Your task to perform on an android device: Go to Wikipedia Image 0: 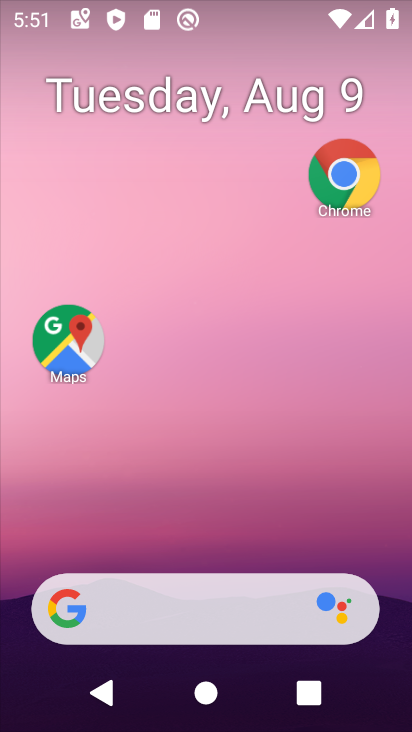
Step 0: drag from (158, 511) to (162, 392)
Your task to perform on an android device: Go to Wikipedia Image 1: 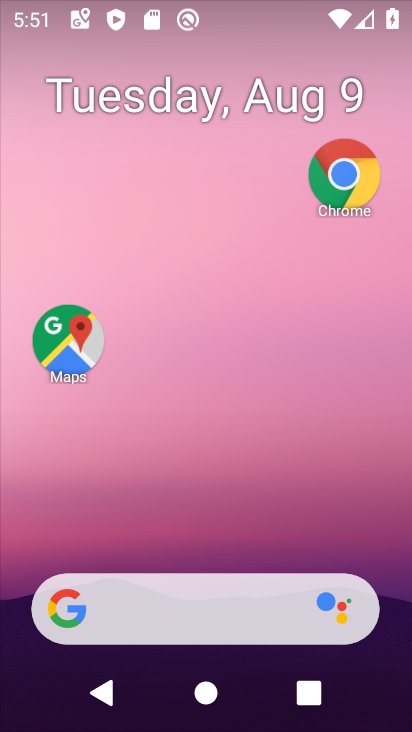
Step 1: drag from (218, 515) to (253, 234)
Your task to perform on an android device: Go to Wikipedia Image 2: 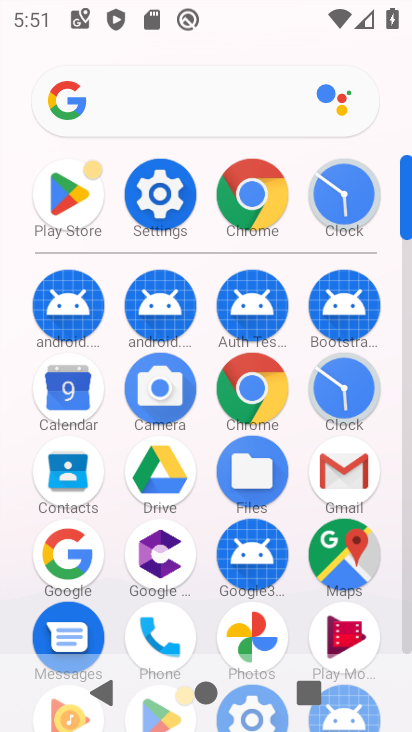
Step 2: drag from (189, 607) to (189, 312)
Your task to perform on an android device: Go to Wikipedia Image 3: 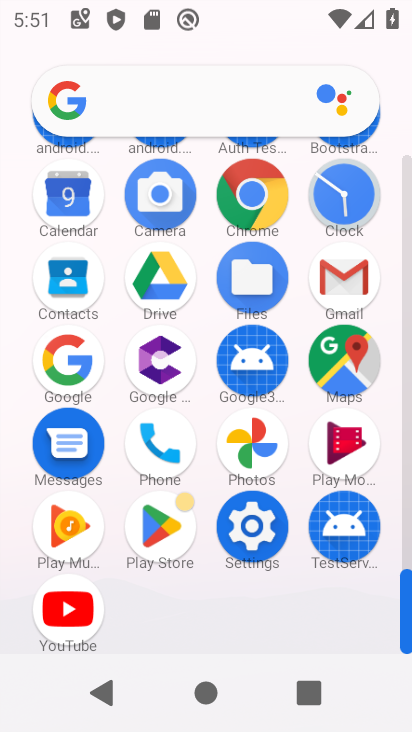
Step 3: click (241, 193)
Your task to perform on an android device: Go to Wikipedia Image 4: 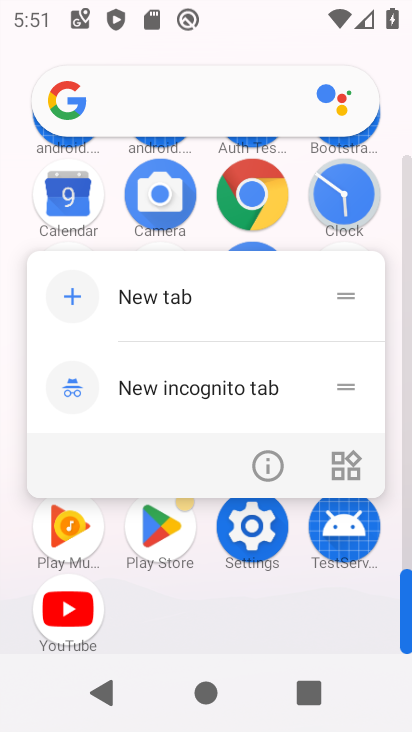
Step 4: click (267, 458)
Your task to perform on an android device: Go to Wikipedia Image 5: 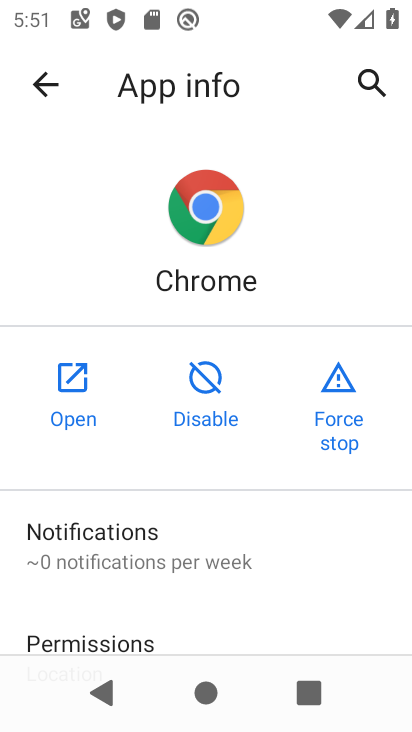
Step 5: click (85, 389)
Your task to perform on an android device: Go to Wikipedia Image 6: 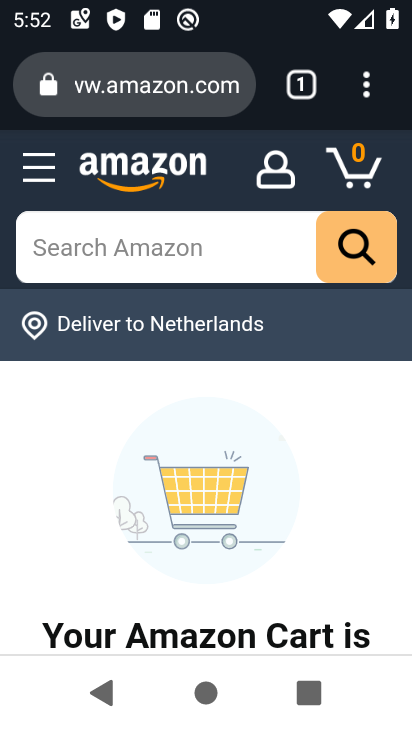
Step 6: click (181, 89)
Your task to perform on an android device: Go to Wikipedia Image 7: 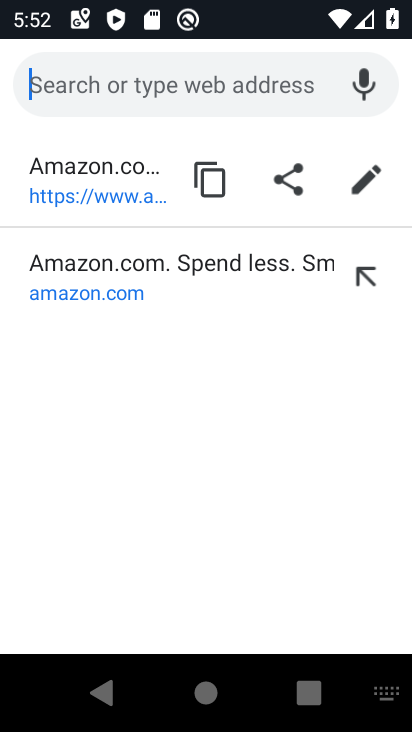
Step 7: type "wikipedia"
Your task to perform on an android device: Go to Wikipedia Image 8: 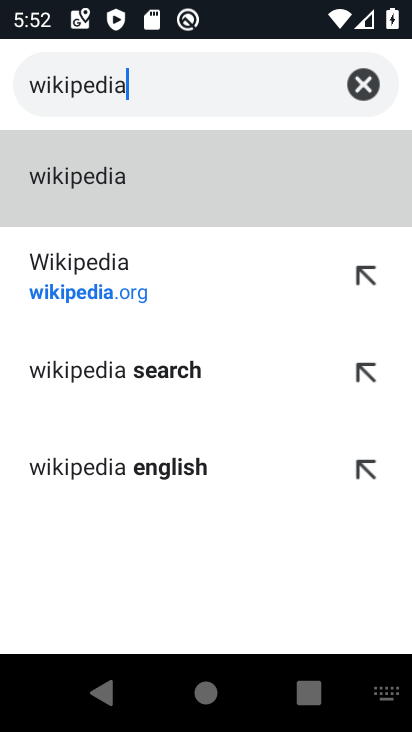
Step 8: click (90, 291)
Your task to perform on an android device: Go to Wikipedia Image 9: 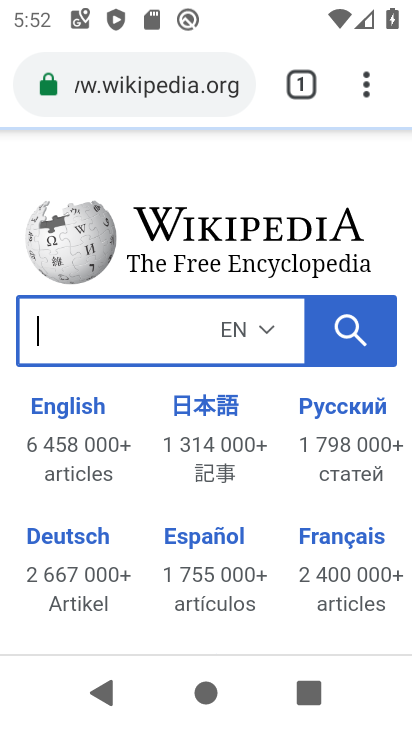
Step 9: task complete